Your task to perform on an android device: Open Yahoo.com Image 0: 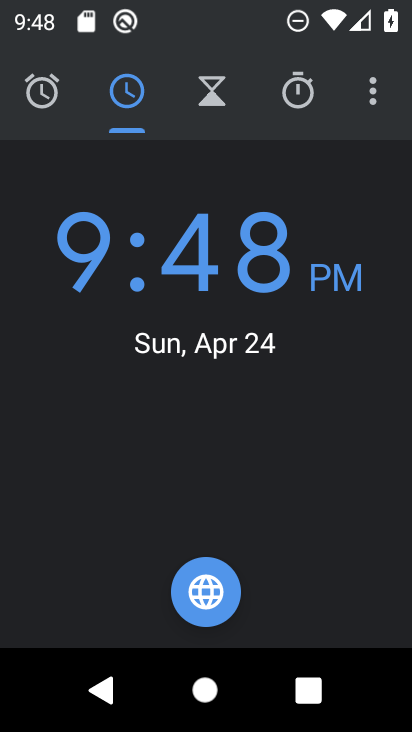
Step 0: press home button
Your task to perform on an android device: Open Yahoo.com Image 1: 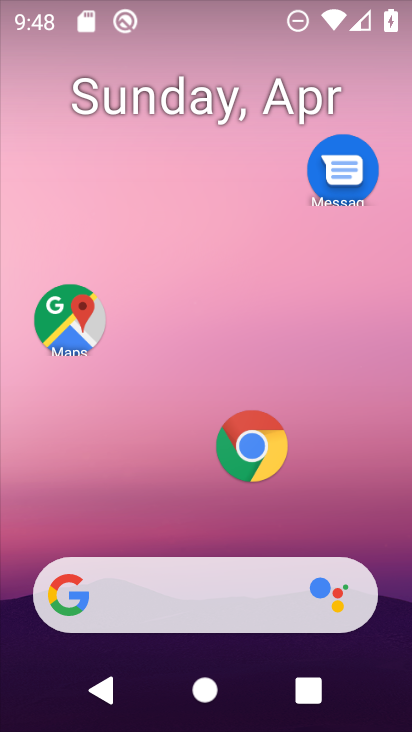
Step 1: drag from (190, 375) to (206, 189)
Your task to perform on an android device: Open Yahoo.com Image 2: 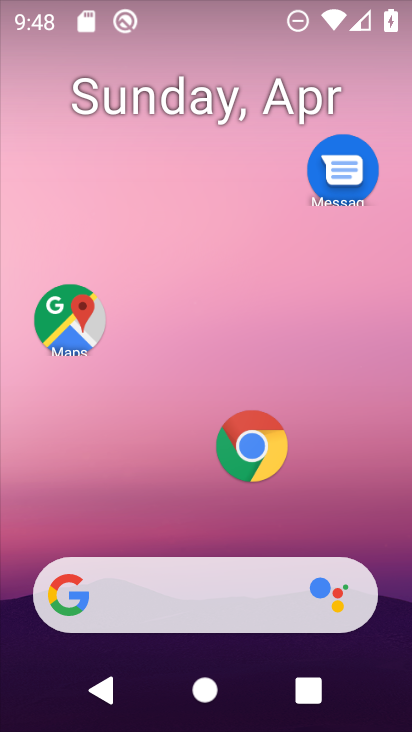
Step 2: click (194, 601)
Your task to perform on an android device: Open Yahoo.com Image 3: 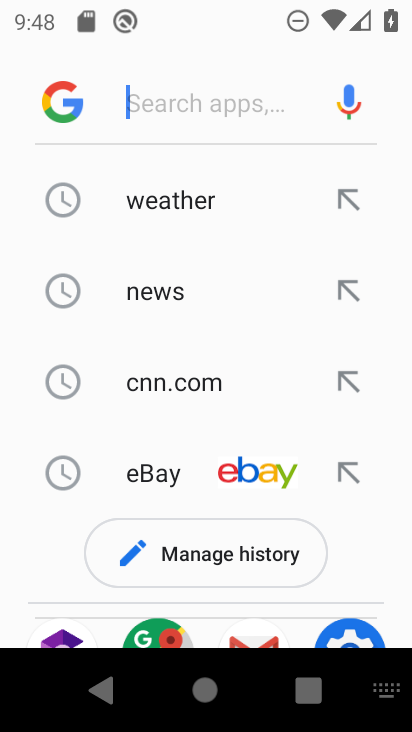
Step 3: drag from (196, 438) to (252, 76)
Your task to perform on an android device: Open Yahoo.com Image 4: 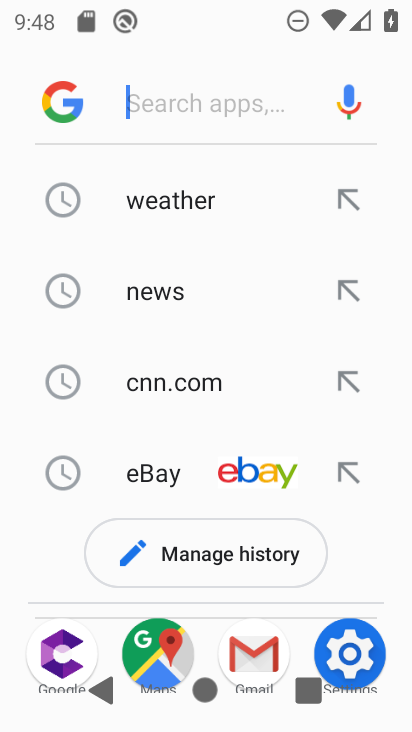
Step 4: drag from (212, 442) to (228, 154)
Your task to perform on an android device: Open Yahoo.com Image 5: 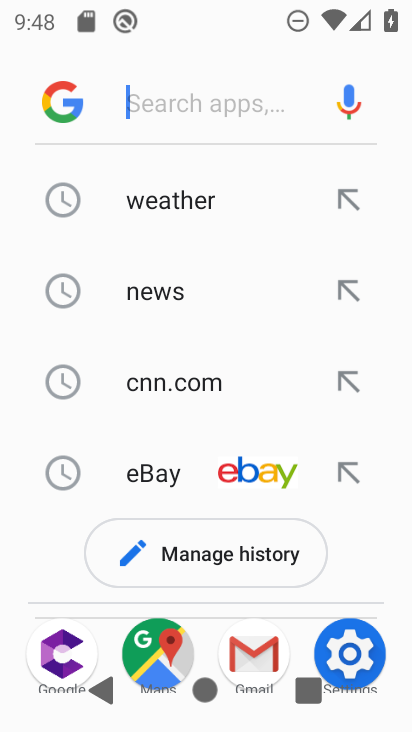
Step 5: click (166, 109)
Your task to perform on an android device: Open Yahoo.com Image 6: 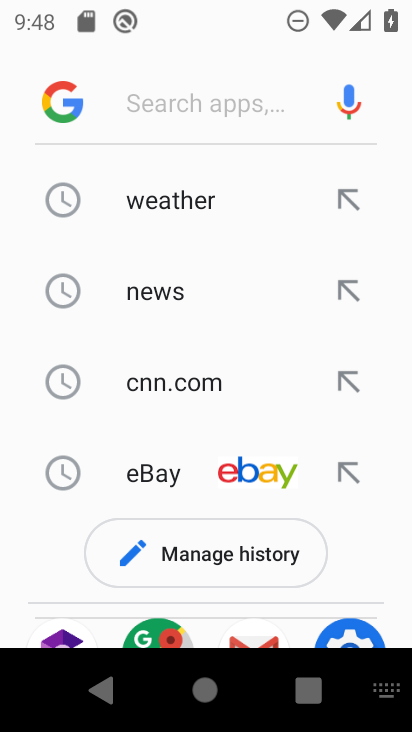
Step 6: type "yahoo.com"
Your task to perform on an android device: Open Yahoo.com Image 7: 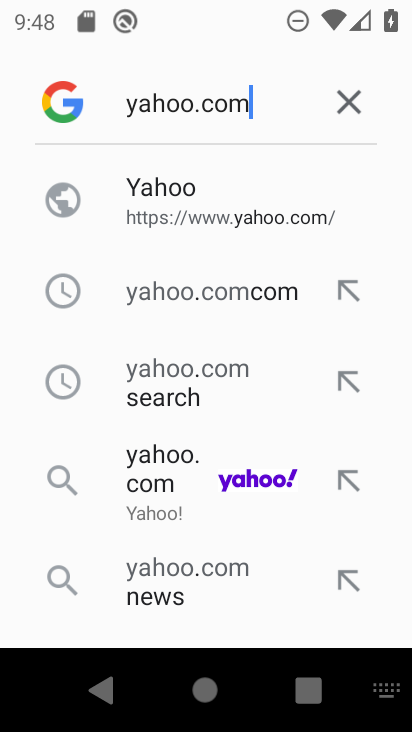
Step 7: click (113, 182)
Your task to perform on an android device: Open Yahoo.com Image 8: 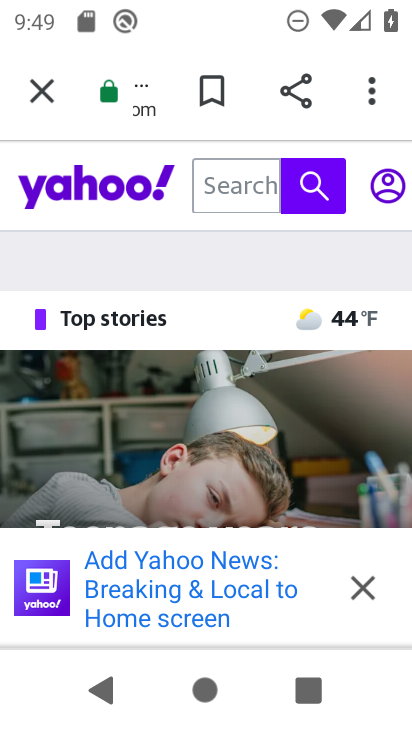
Step 8: task complete